Your task to perform on an android device: Set the phone to "Do not disturb". Image 0: 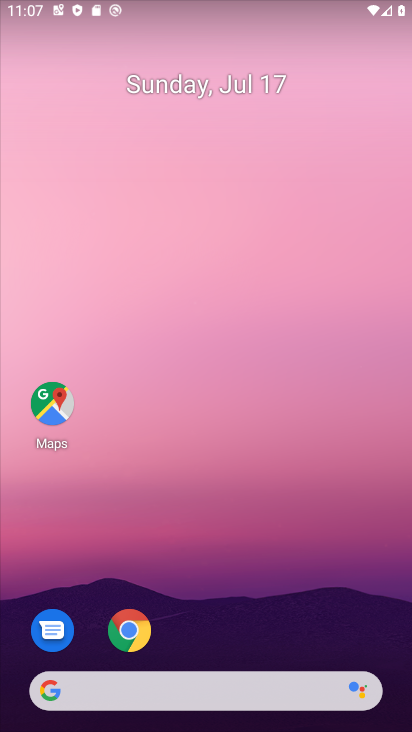
Step 0: click (185, 233)
Your task to perform on an android device: Set the phone to "Do not disturb". Image 1: 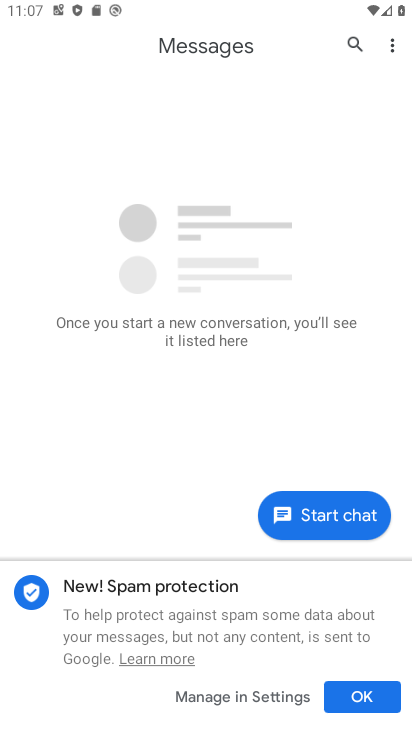
Step 1: press home button
Your task to perform on an android device: Set the phone to "Do not disturb". Image 2: 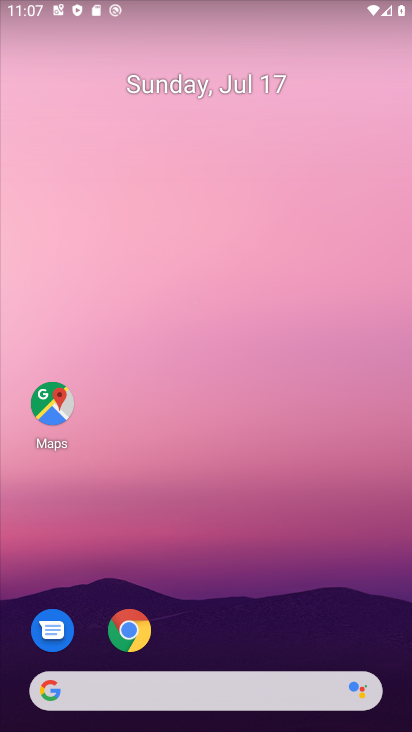
Step 2: drag from (194, 572) to (179, 112)
Your task to perform on an android device: Set the phone to "Do not disturb". Image 3: 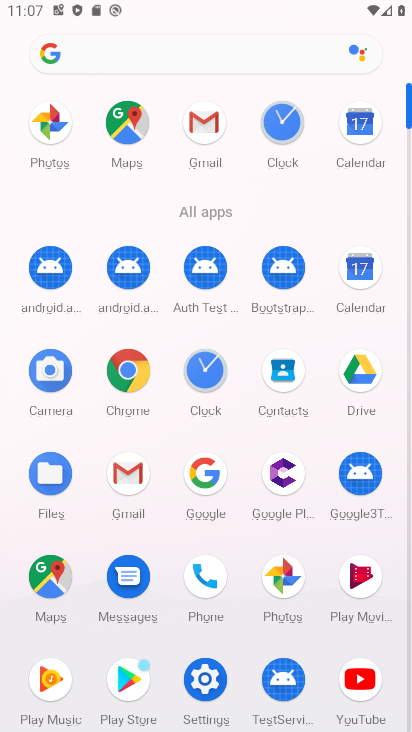
Step 3: click (208, 679)
Your task to perform on an android device: Set the phone to "Do not disturb". Image 4: 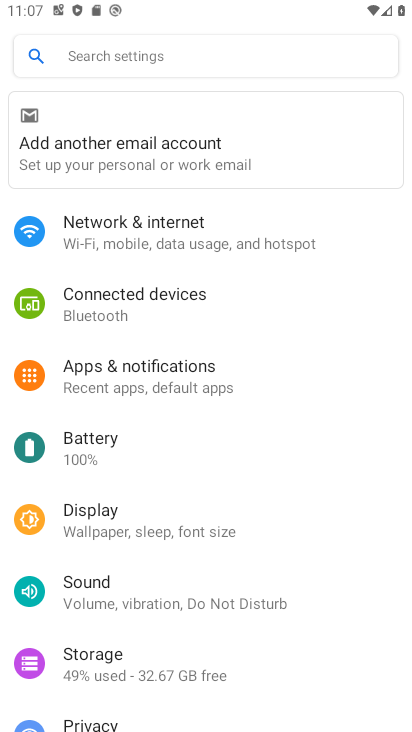
Step 4: click (91, 593)
Your task to perform on an android device: Set the phone to "Do not disturb". Image 5: 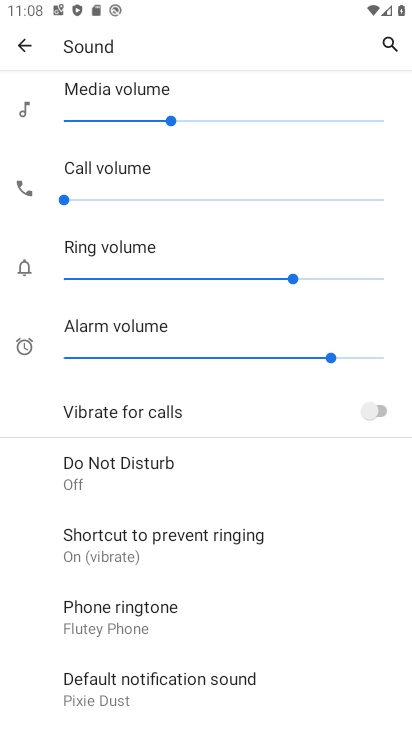
Step 5: click (95, 469)
Your task to perform on an android device: Set the phone to "Do not disturb". Image 6: 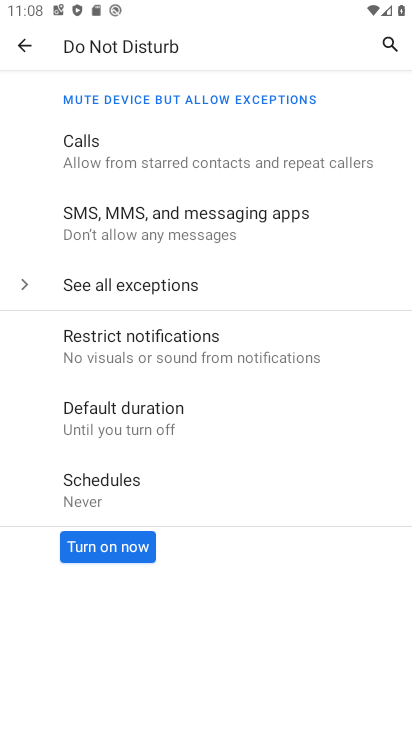
Step 6: click (91, 550)
Your task to perform on an android device: Set the phone to "Do not disturb". Image 7: 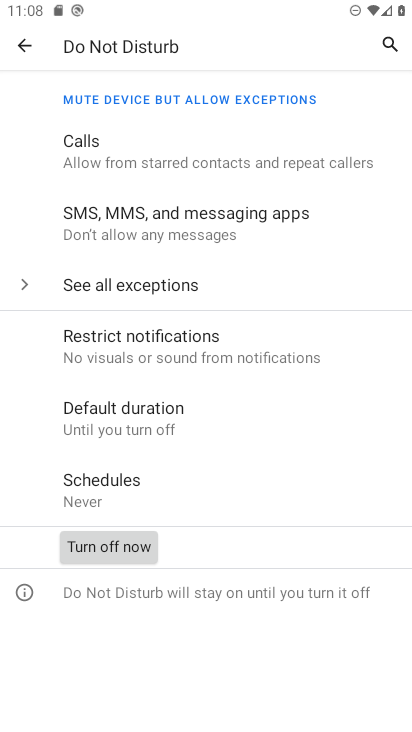
Step 7: task complete